Your task to perform on an android device: Search for seafood restaurants on Google Maps Image 0: 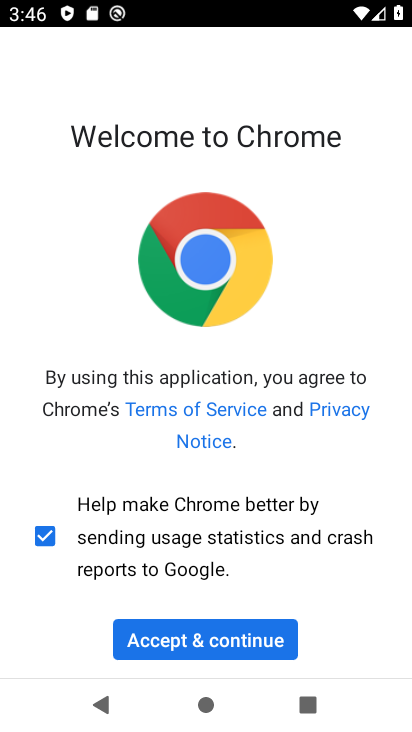
Step 0: press home button
Your task to perform on an android device: Search for seafood restaurants on Google Maps Image 1: 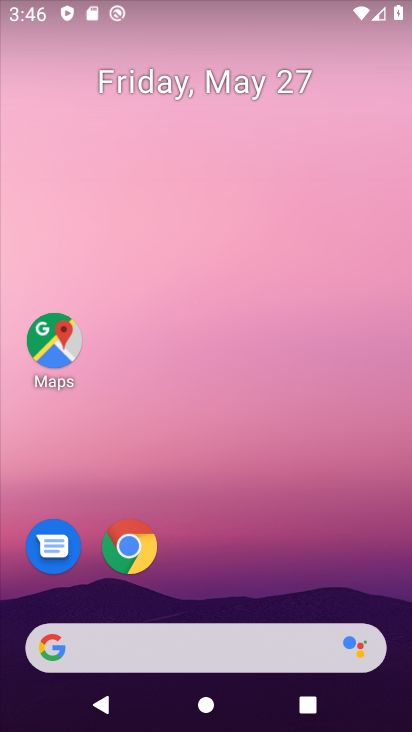
Step 1: click (59, 336)
Your task to perform on an android device: Search for seafood restaurants on Google Maps Image 2: 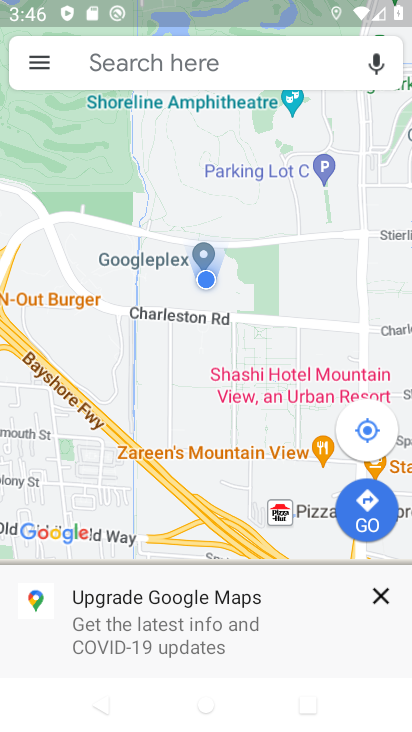
Step 2: click (108, 60)
Your task to perform on an android device: Search for seafood restaurants on Google Maps Image 3: 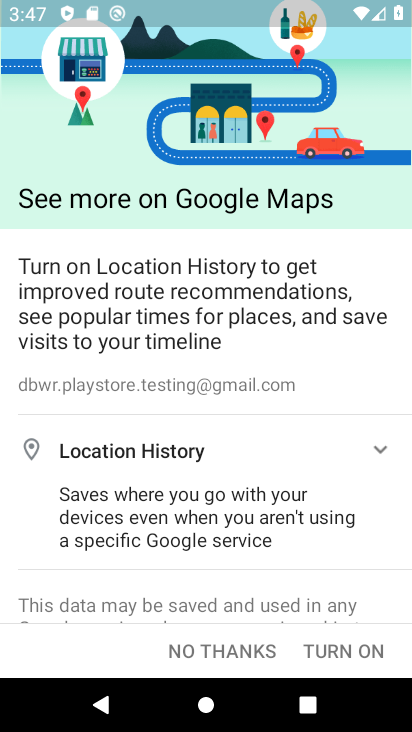
Step 3: drag from (289, 567) to (315, 207)
Your task to perform on an android device: Search for seafood restaurants on Google Maps Image 4: 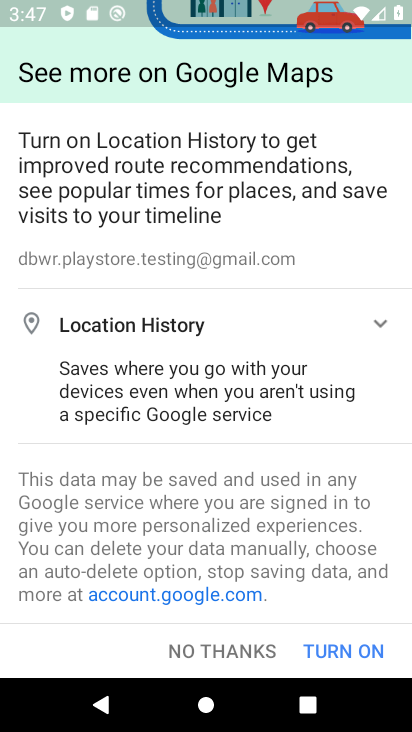
Step 4: drag from (259, 574) to (281, 180)
Your task to perform on an android device: Search for seafood restaurants on Google Maps Image 5: 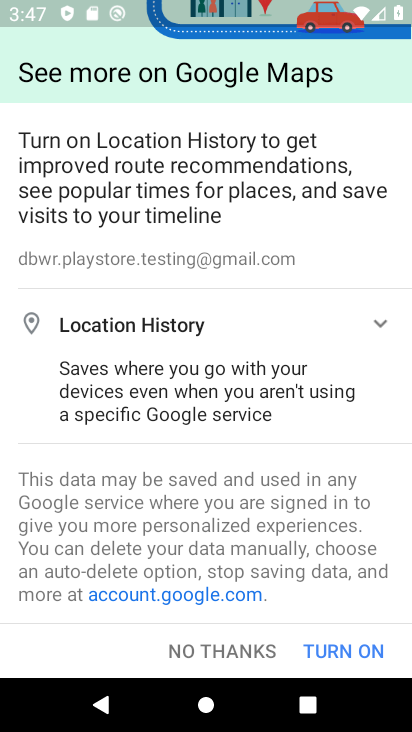
Step 5: click (350, 648)
Your task to perform on an android device: Search for seafood restaurants on Google Maps Image 6: 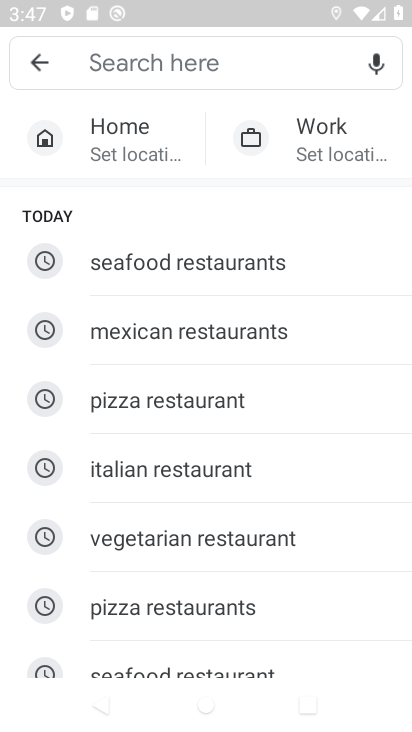
Step 6: click (216, 654)
Your task to perform on an android device: Search for seafood restaurants on Google Maps Image 7: 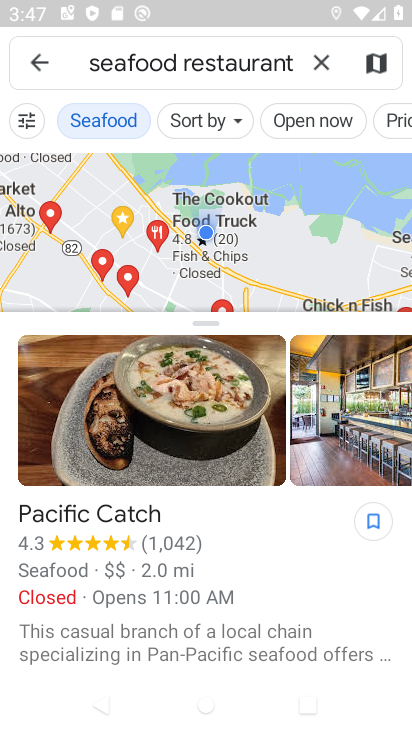
Step 7: task complete